Your task to perform on an android device: set default search engine in the chrome app Image 0: 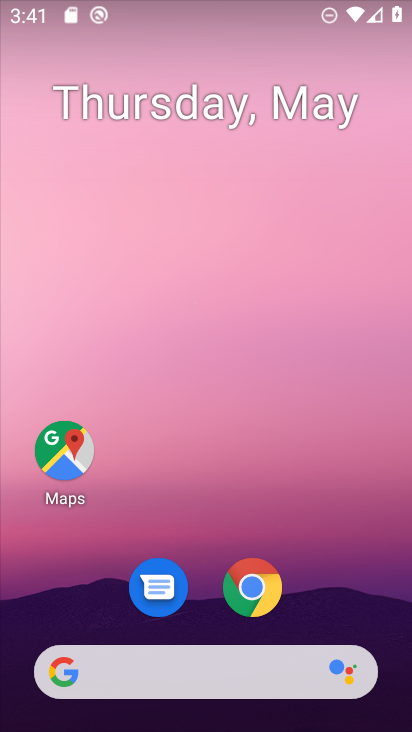
Step 0: drag from (370, 581) to (365, 215)
Your task to perform on an android device: set default search engine in the chrome app Image 1: 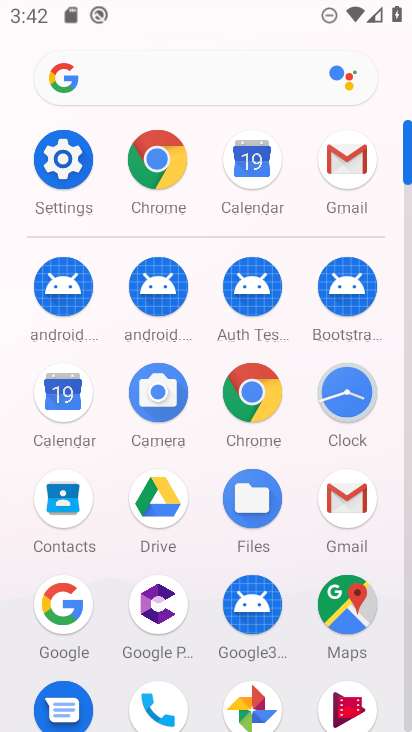
Step 1: click (275, 396)
Your task to perform on an android device: set default search engine in the chrome app Image 2: 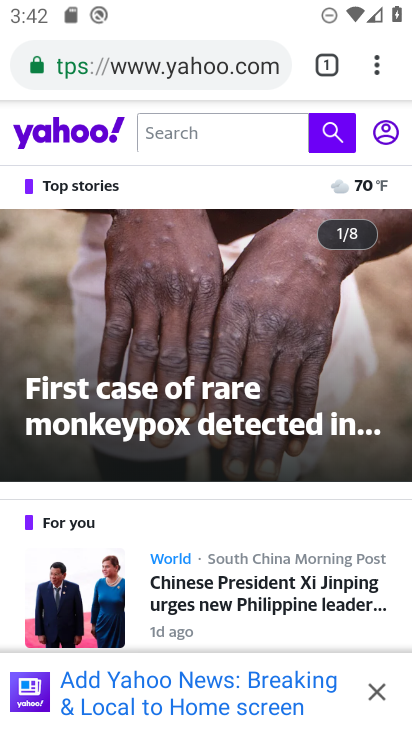
Step 2: click (376, 73)
Your task to perform on an android device: set default search engine in the chrome app Image 3: 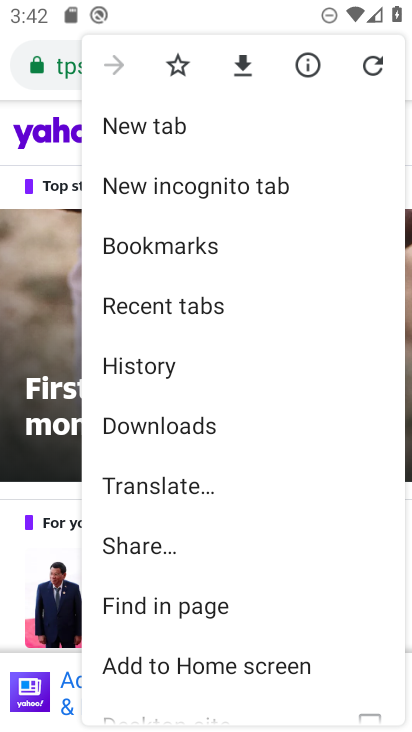
Step 3: drag from (325, 514) to (333, 395)
Your task to perform on an android device: set default search engine in the chrome app Image 4: 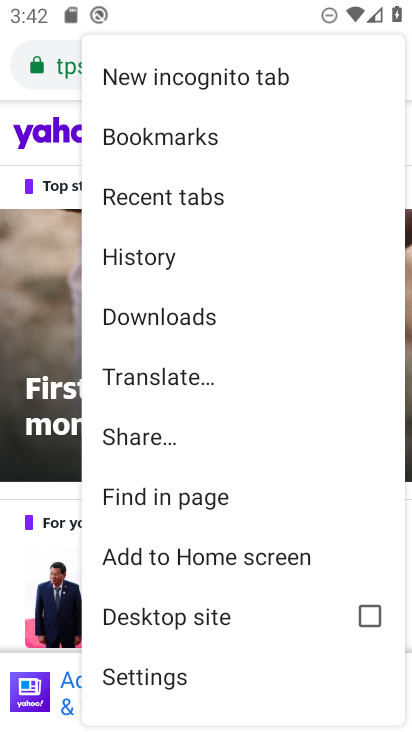
Step 4: drag from (313, 615) to (309, 490)
Your task to perform on an android device: set default search engine in the chrome app Image 5: 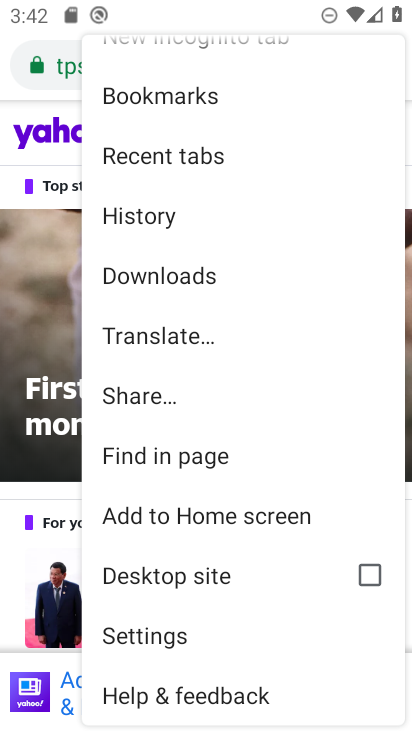
Step 5: click (191, 650)
Your task to perform on an android device: set default search engine in the chrome app Image 6: 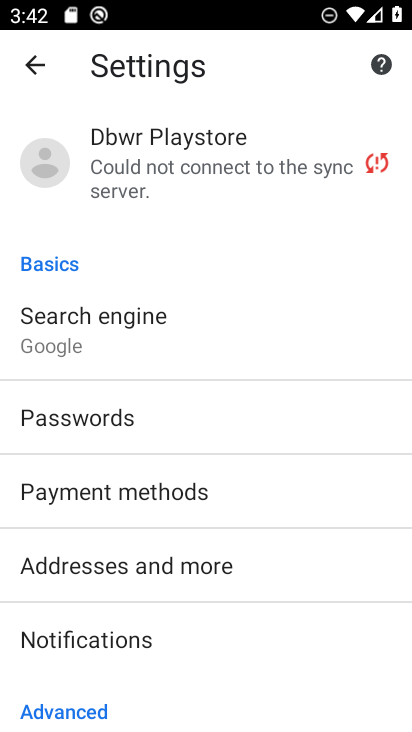
Step 6: drag from (301, 349) to (296, 513)
Your task to perform on an android device: set default search engine in the chrome app Image 7: 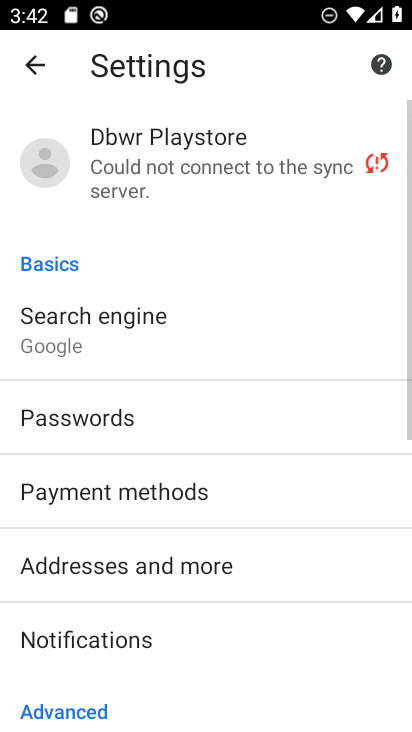
Step 7: drag from (289, 570) to (288, 457)
Your task to perform on an android device: set default search engine in the chrome app Image 8: 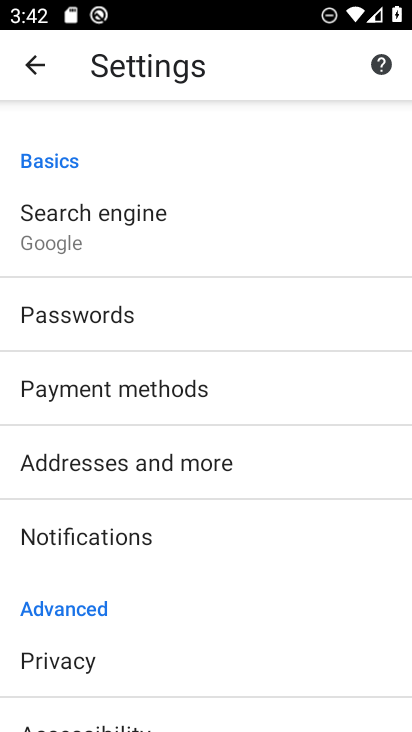
Step 8: drag from (300, 592) to (299, 482)
Your task to perform on an android device: set default search engine in the chrome app Image 9: 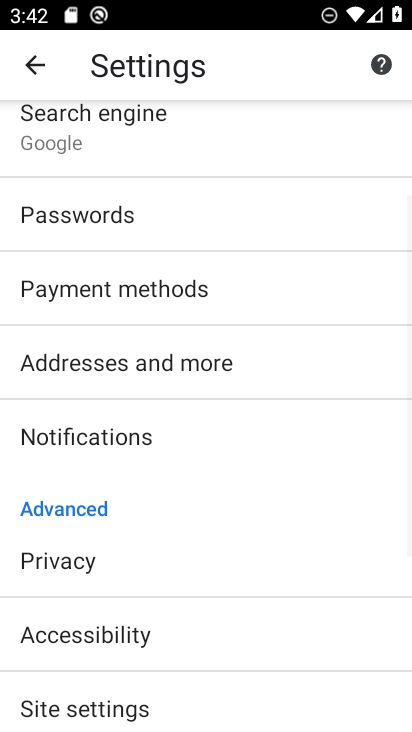
Step 9: drag from (283, 614) to (287, 492)
Your task to perform on an android device: set default search engine in the chrome app Image 10: 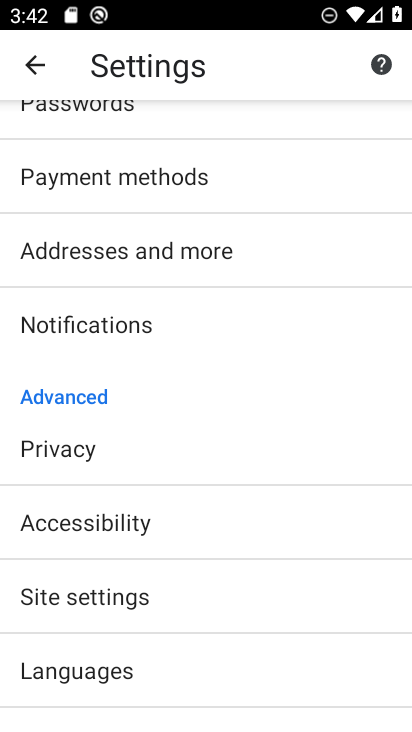
Step 10: drag from (287, 626) to (293, 519)
Your task to perform on an android device: set default search engine in the chrome app Image 11: 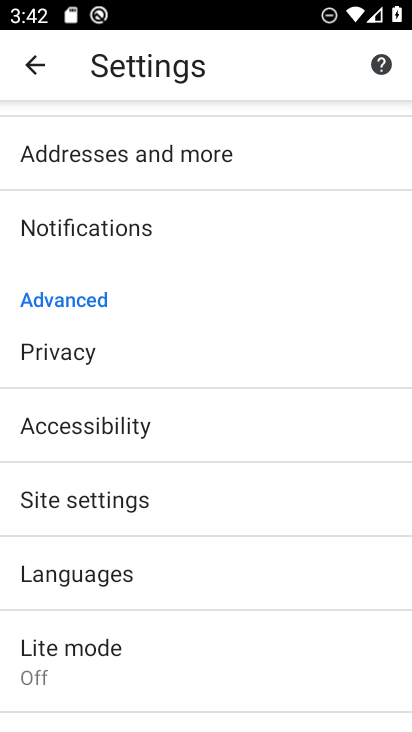
Step 11: drag from (293, 641) to (289, 529)
Your task to perform on an android device: set default search engine in the chrome app Image 12: 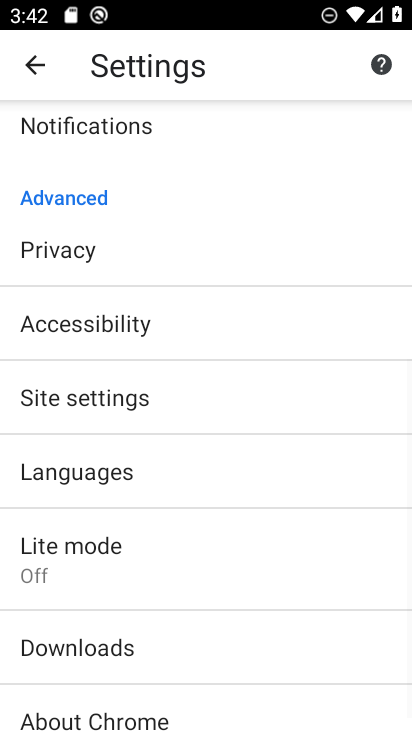
Step 12: drag from (273, 667) to (274, 569)
Your task to perform on an android device: set default search engine in the chrome app Image 13: 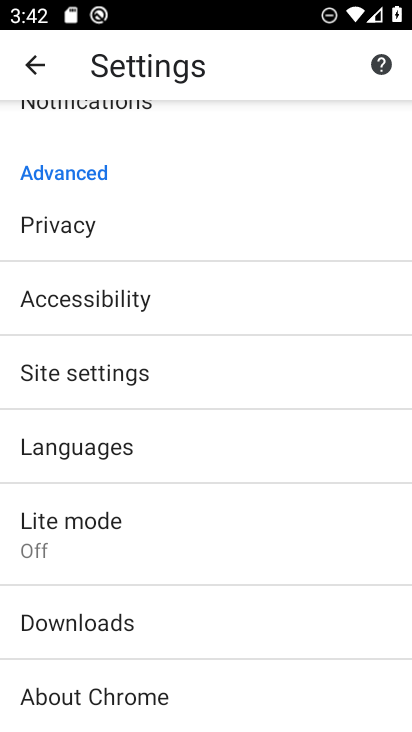
Step 13: drag from (277, 665) to (280, 541)
Your task to perform on an android device: set default search engine in the chrome app Image 14: 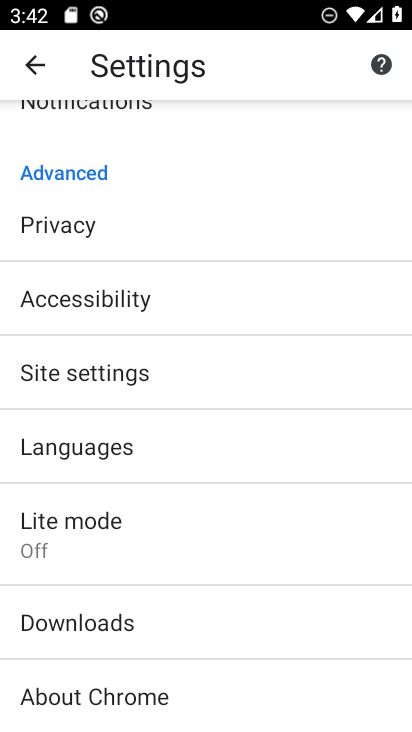
Step 14: drag from (287, 401) to (272, 519)
Your task to perform on an android device: set default search engine in the chrome app Image 15: 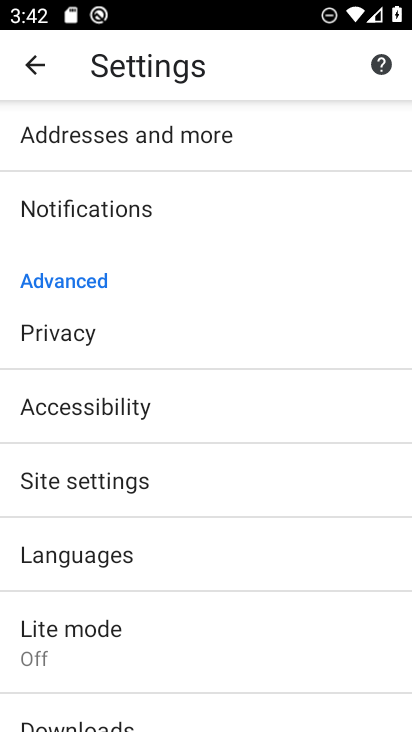
Step 15: drag from (259, 429) to (259, 514)
Your task to perform on an android device: set default search engine in the chrome app Image 16: 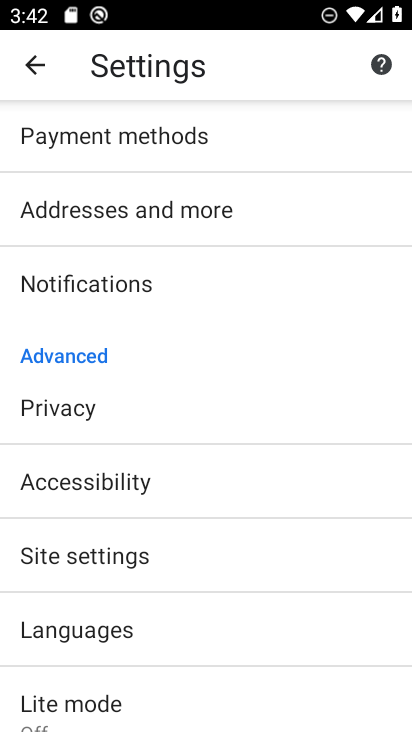
Step 16: drag from (248, 397) to (243, 504)
Your task to perform on an android device: set default search engine in the chrome app Image 17: 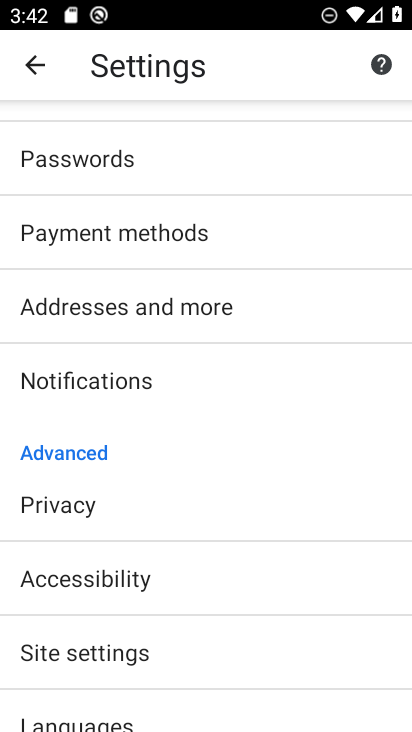
Step 17: drag from (248, 329) to (250, 461)
Your task to perform on an android device: set default search engine in the chrome app Image 18: 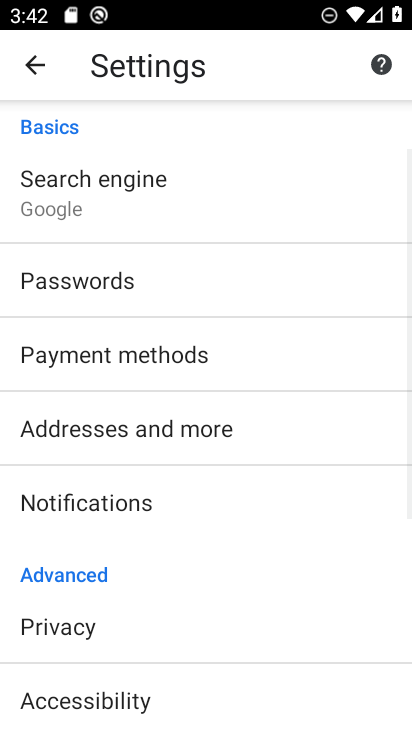
Step 18: drag from (255, 274) to (261, 424)
Your task to perform on an android device: set default search engine in the chrome app Image 19: 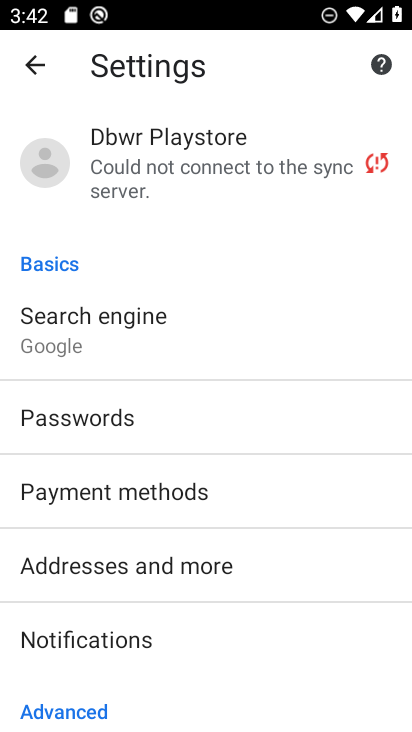
Step 19: click (163, 340)
Your task to perform on an android device: set default search engine in the chrome app Image 20: 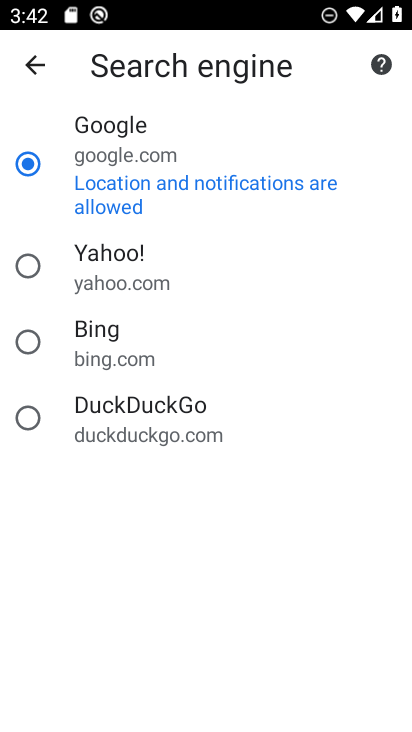
Step 20: click (126, 333)
Your task to perform on an android device: set default search engine in the chrome app Image 21: 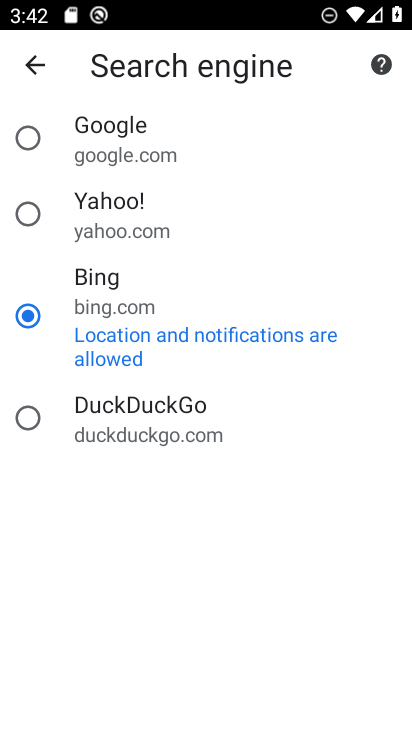
Step 21: task complete